Your task to perform on an android device: What's the latest video from GameSpot eSports? Image 0: 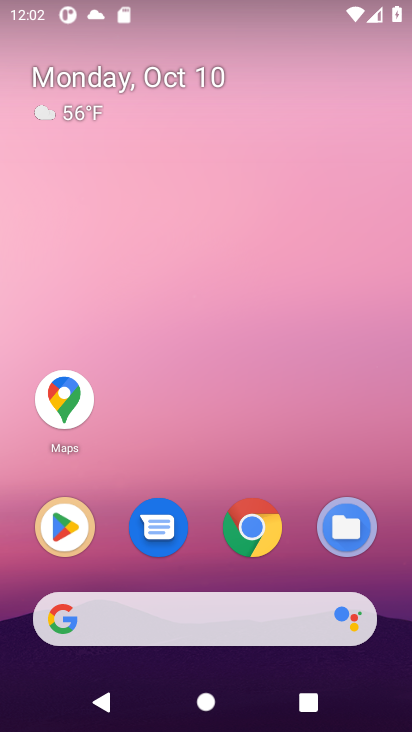
Step 0: drag from (254, 561) to (215, 75)
Your task to perform on an android device: What's the latest video from GameSpot eSports? Image 1: 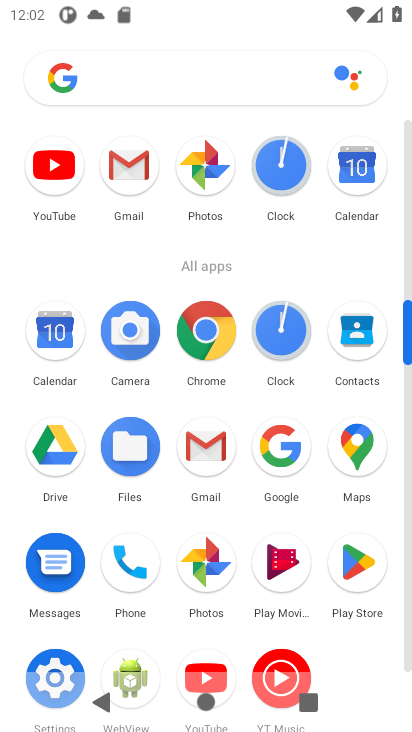
Step 1: click (48, 173)
Your task to perform on an android device: What's the latest video from GameSpot eSports? Image 2: 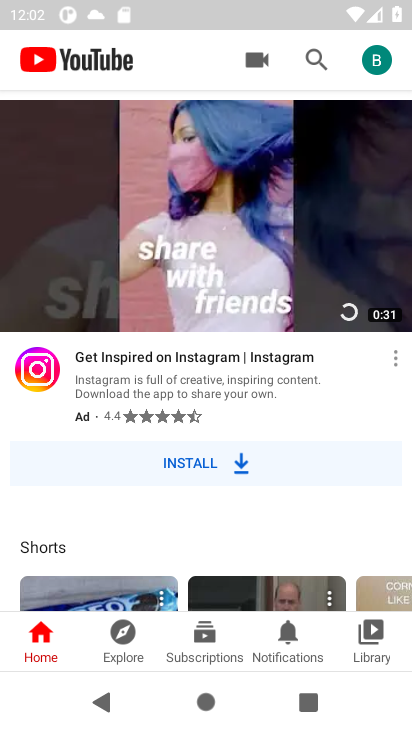
Step 2: click (322, 58)
Your task to perform on an android device: What's the latest video from GameSpot eSports? Image 3: 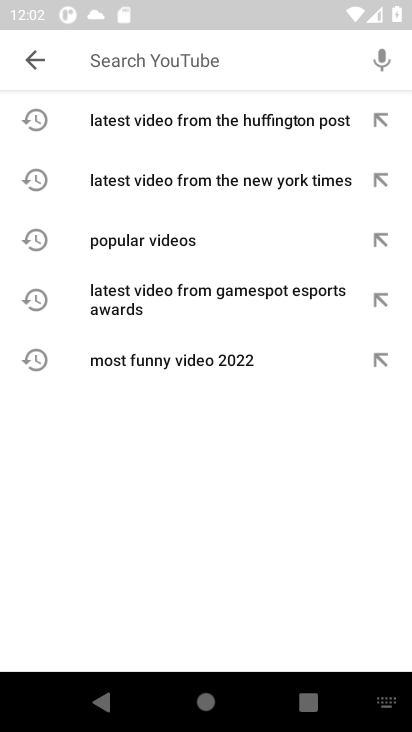
Step 3: click (202, 66)
Your task to perform on an android device: What's the latest video from GameSpot eSports? Image 4: 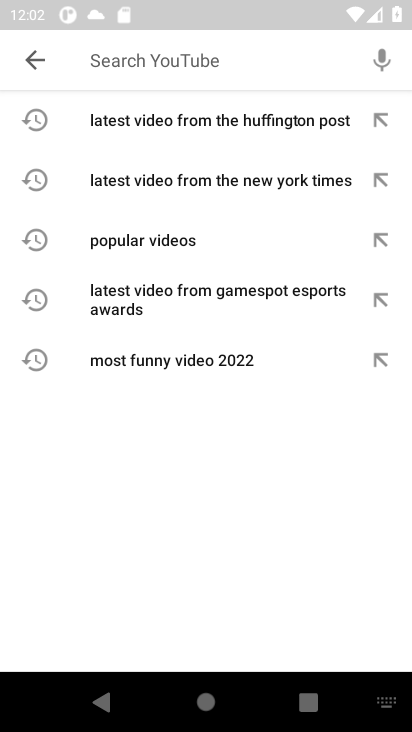
Step 4: type "latest video from GameSpot eSports"
Your task to perform on an android device: What's the latest video from GameSpot eSports? Image 5: 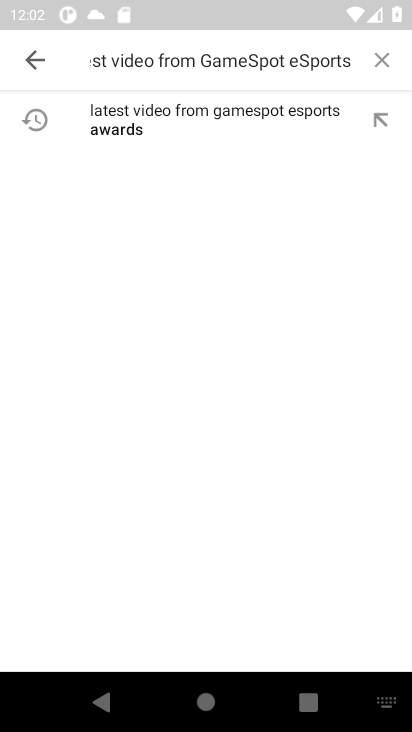
Step 5: click (188, 120)
Your task to perform on an android device: What's the latest video from GameSpot eSports? Image 6: 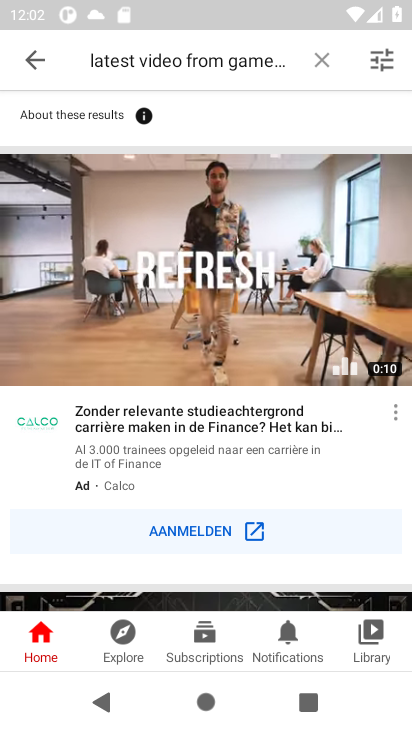
Step 6: drag from (194, 413) to (197, 203)
Your task to perform on an android device: What's the latest video from GameSpot eSports? Image 7: 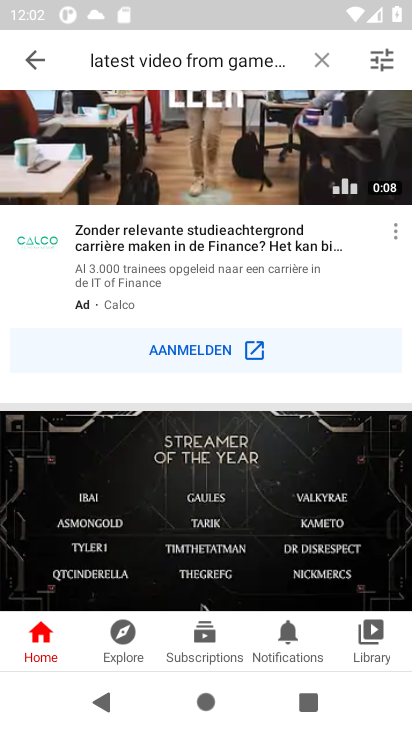
Step 7: drag from (193, 475) to (206, 234)
Your task to perform on an android device: What's the latest video from GameSpot eSports? Image 8: 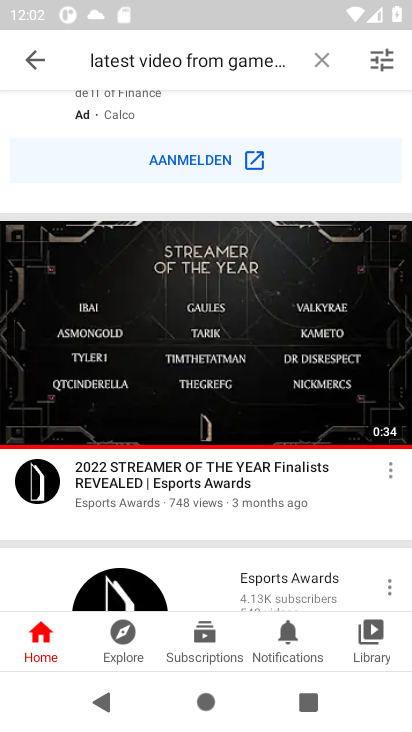
Step 8: click (202, 368)
Your task to perform on an android device: What's the latest video from GameSpot eSports? Image 9: 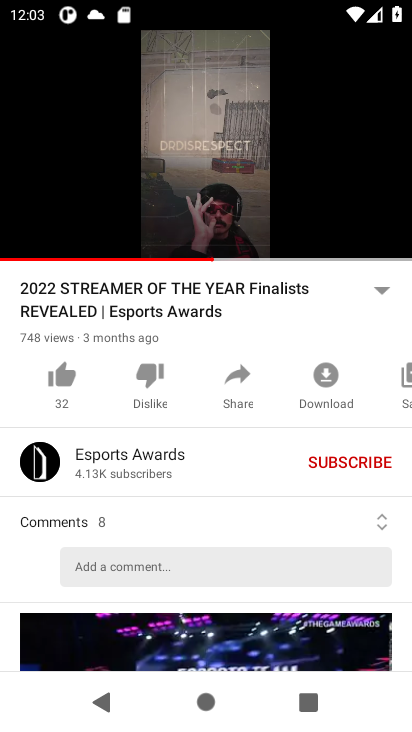
Step 9: click (204, 138)
Your task to perform on an android device: What's the latest video from GameSpot eSports? Image 10: 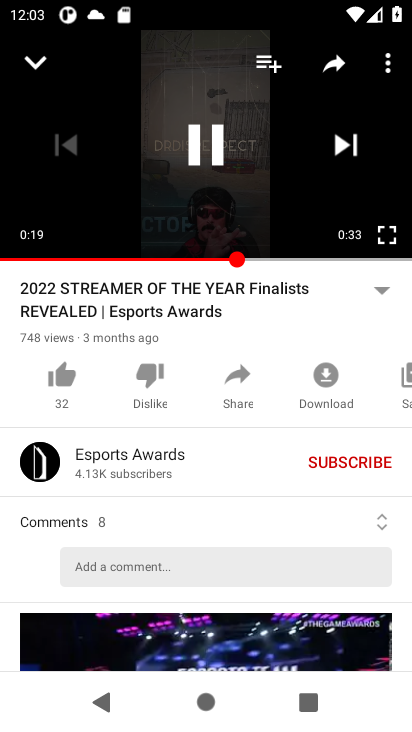
Step 10: click (204, 138)
Your task to perform on an android device: What's the latest video from GameSpot eSports? Image 11: 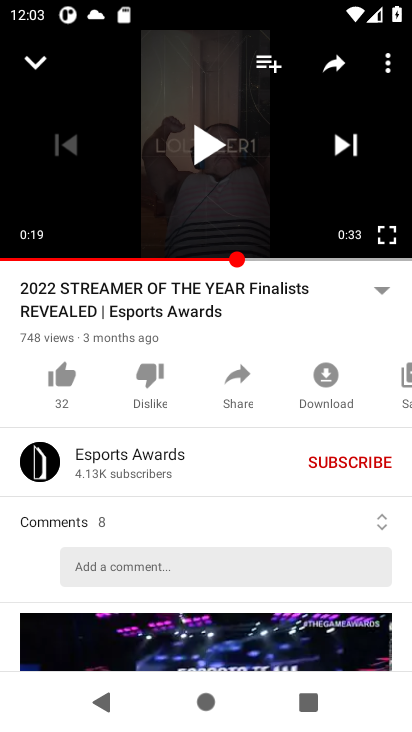
Step 11: task complete